Your task to perform on an android device: Go to network settings Image 0: 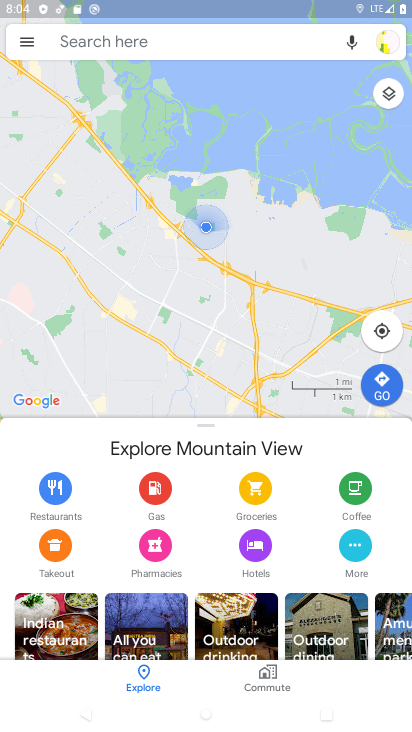
Step 0: press home button
Your task to perform on an android device: Go to network settings Image 1: 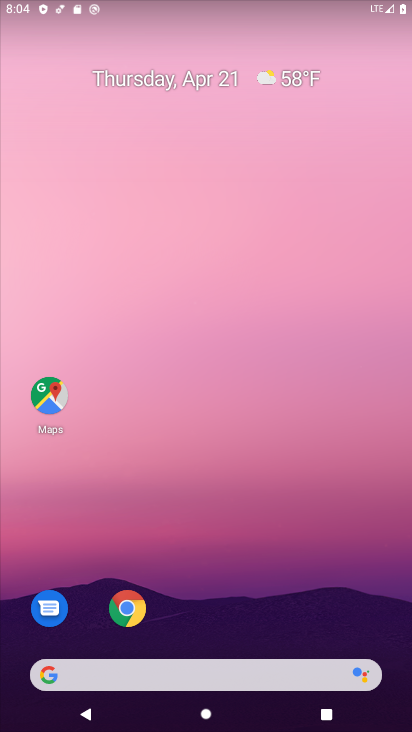
Step 1: drag from (283, 609) to (326, 97)
Your task to perform on an android device: Go to network settings Image 2: 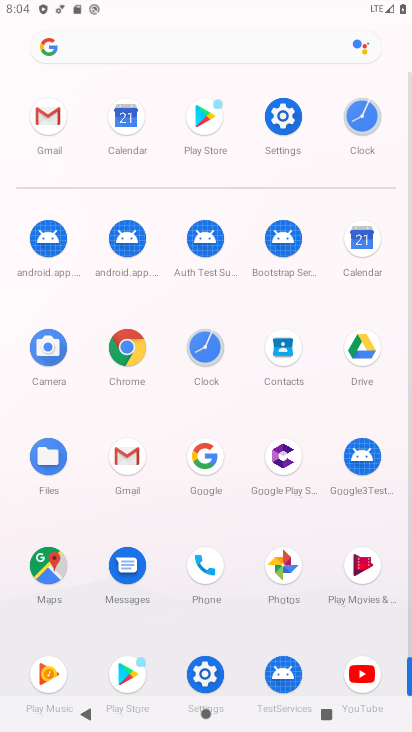
Step 2: click (282, 117)
Your task to perform on an android device: Go to network settings Image 3: 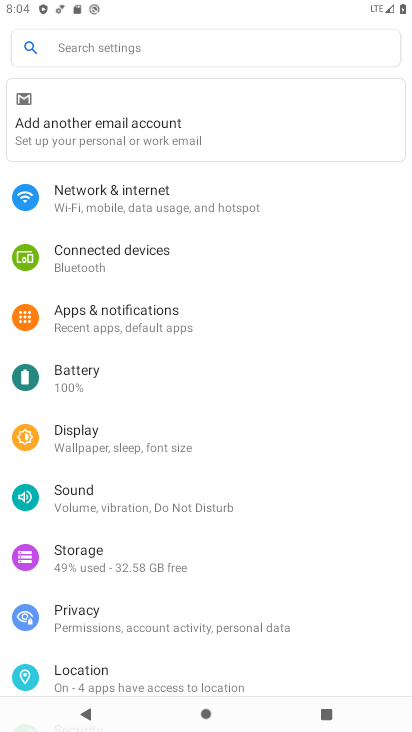
Step 3: click (228, 193)
Your task to perform on an android device: Go to network settings Image 4: 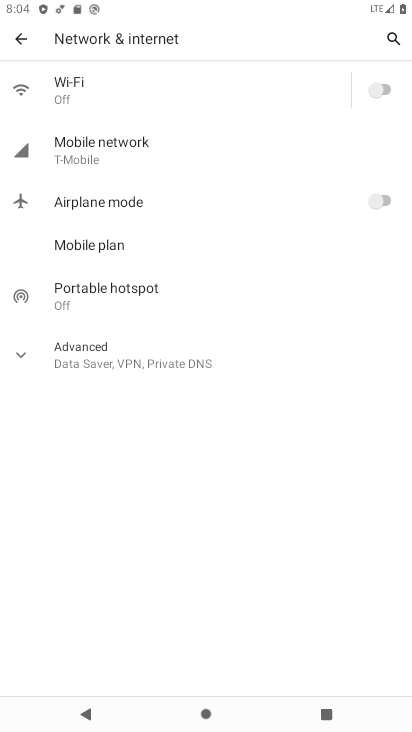
Step 4: task complete